Your task to perform on an android device: manage bookmarks in the chrome app Image 0: 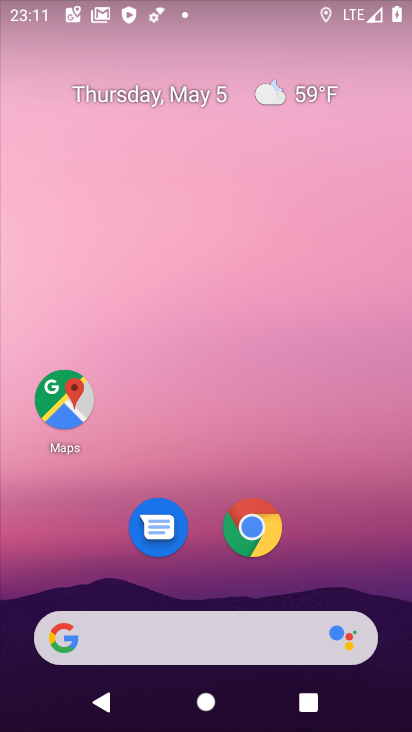
Step 0: click (248, 532)
Your task to perform on an android device: manage bookmarks in the chrome app Image 1: 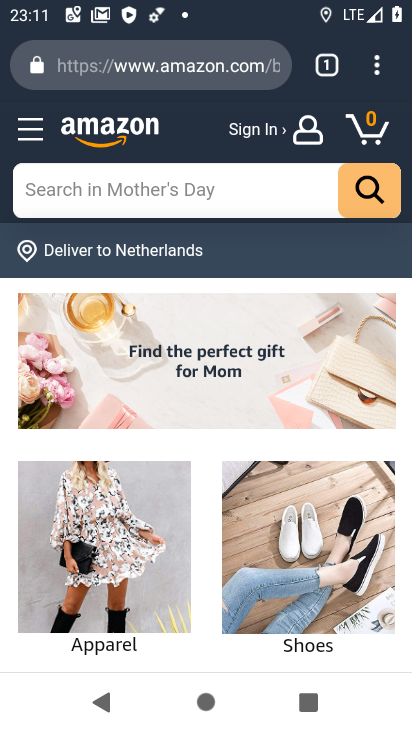
Step 1: click (376, 67)
Your task to perform on an android device: manage bookmarks in the chrome app Image 2: 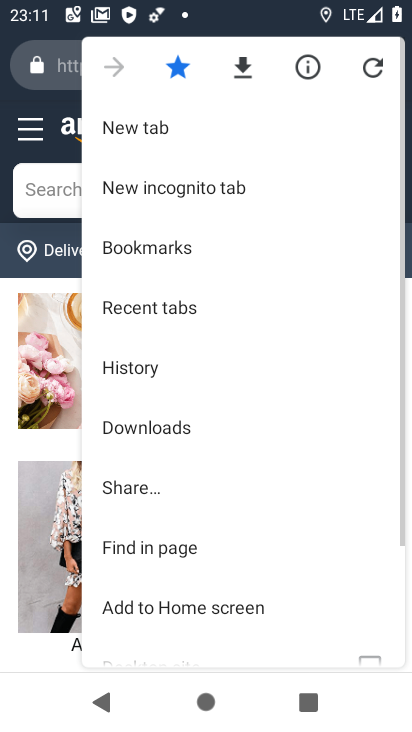
Step 2: click (176, 249)
Your task to perform on an android device: manage bookmarks in the chrome app Image 3: 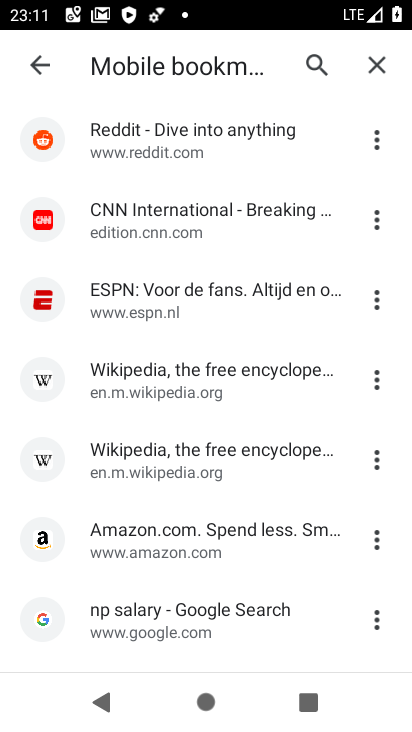
Step 3: click (375, 135)
Your task to perform on an android device: manage bookmarks in the chrome app Image 4: 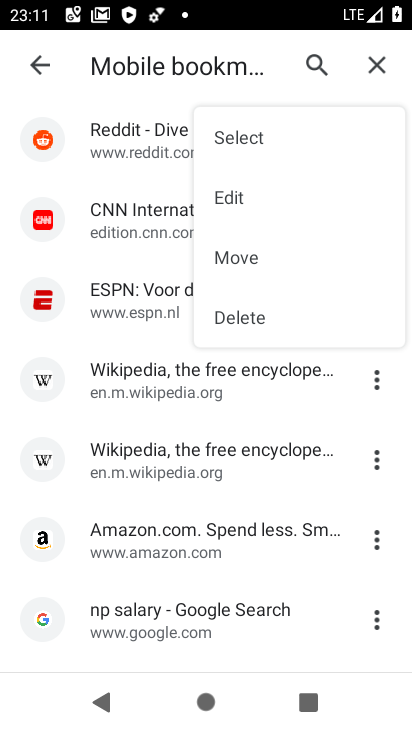
Step 4: click (287, 138)
Your task to perform on an android device: manage bookmarks in the chrome app Image 5: 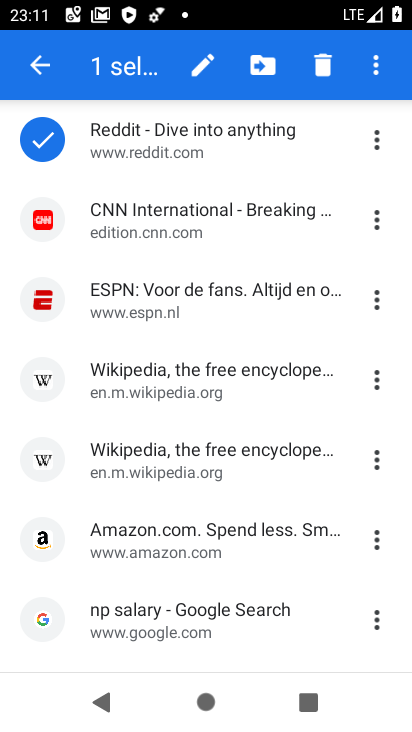
Step 5: click (212, 225)
Your task to perform on an android device: manage bookmarks in the chrome app Image 6: 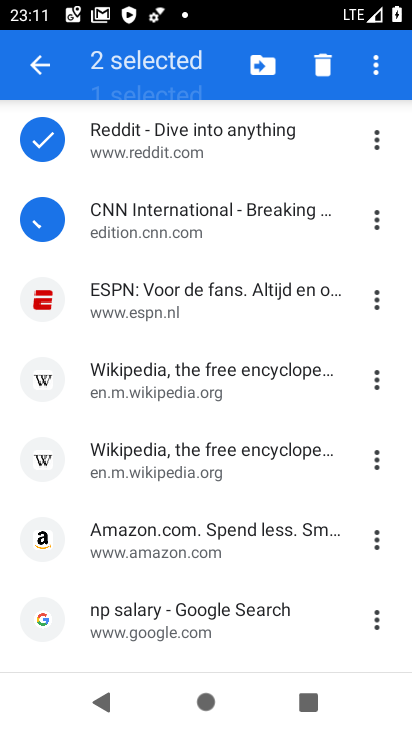
Step 6: click (198, 310)
Your task to perform on an android device: manage bookmarks in the chrome app Image 7: 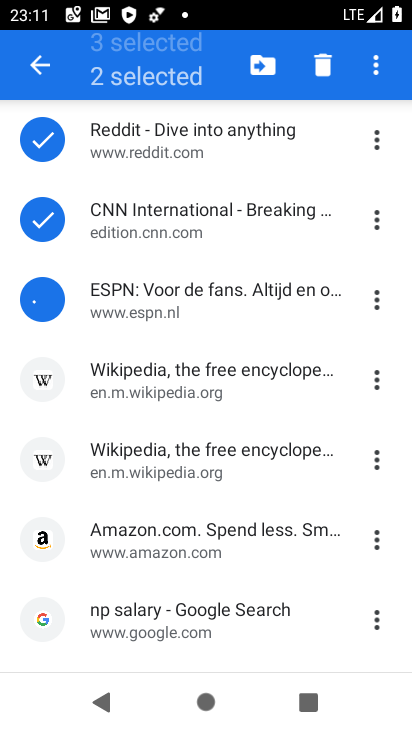
Step 7: click (180, 378)
Your task to perform on an android device: manage bookmarks in the chrome app Image 8: 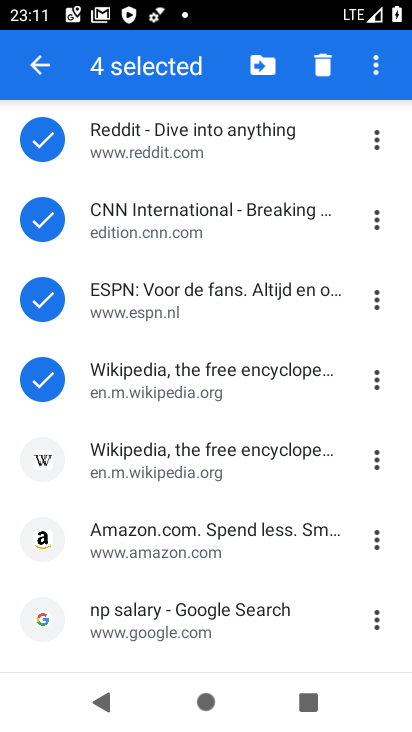
Step 8: click (171, 458)
Your task to perform on an android device: manage bookmarks in the chrome app Image 9: 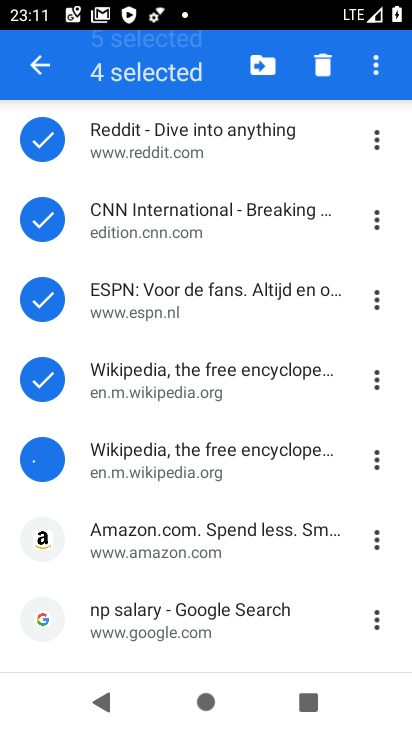
Step 9: click (165, 549)
Your task to perform on an android device: manage bookmarks in the chrome app Image 10: 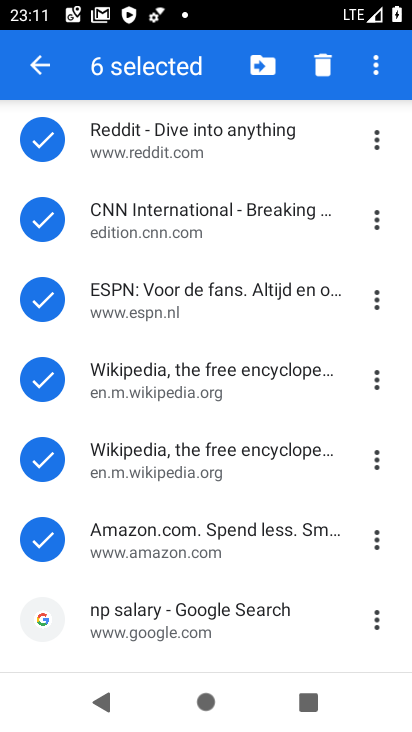
Step 10: click (143, 616)
Your task to perform on an android device: manage bookmarks in the chrome app Image 11: 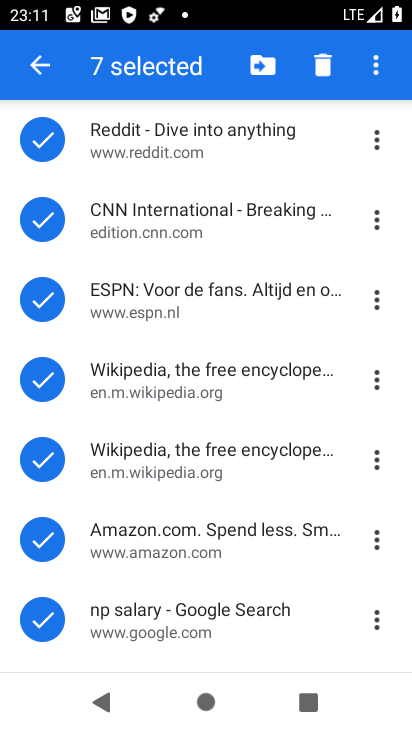
Step 11: drag from (177, 630) to (280, 59)
Your task to perform on an android device: manage bookmarks in the chrome app Image 12: 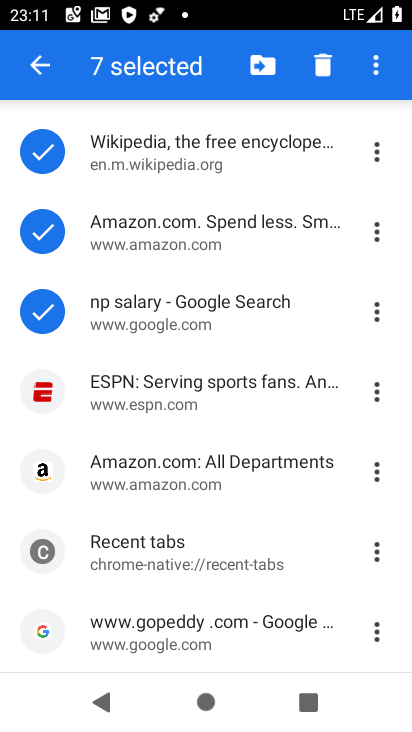
Step 12: click (159, 401)
Your task to perform on an android device: manage bookmarks in the chrome app Image 13: 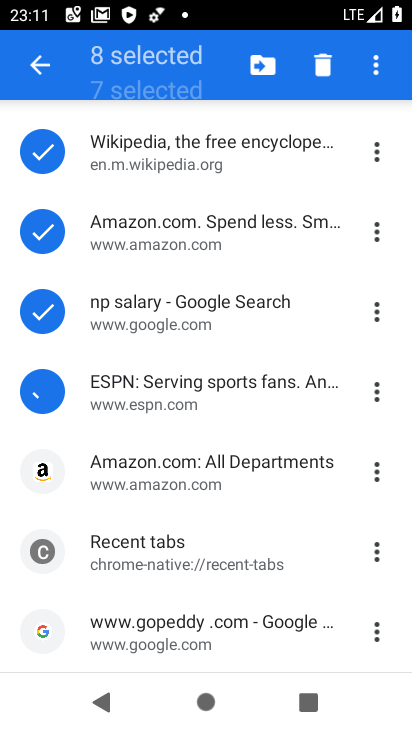
Step 13: click (157, 486)
Your task to perform on an android device: manage bookmarks in the chrome app Image 14: 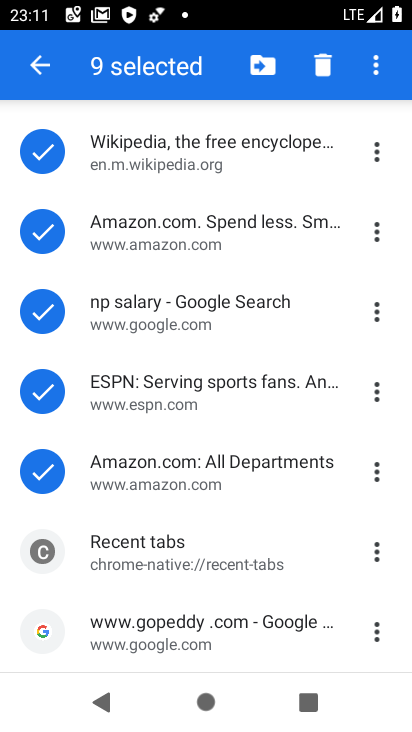
Step 14: click (145, 567)
Your task to perform on an android device: manage bookmarks in the chrome app Image 15: 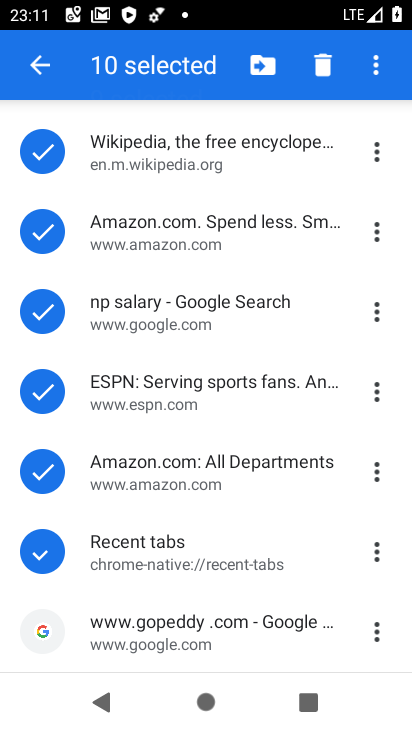
Step 15: click (134, 631)
Your task to perform on an android device: manage bookmarks in the chrome app Image 16: 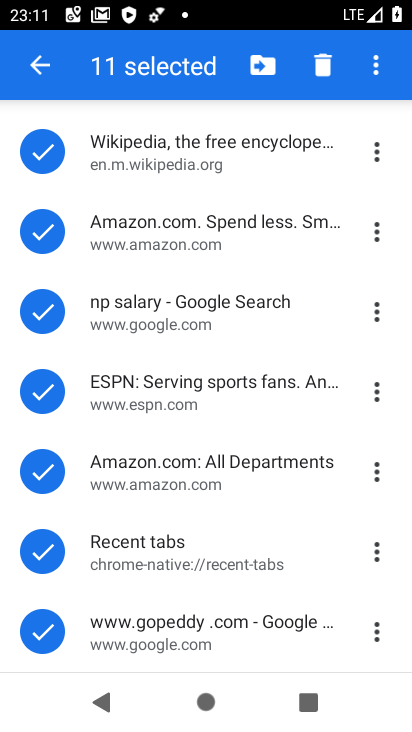
Step 16: click (264, 74)
Your task to perform on an android device: manage bookmarks in the chrome app Image 17: 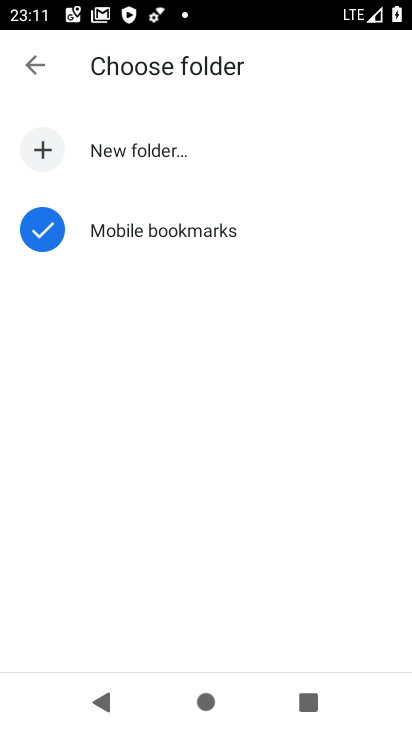
Step 17: click (179, 161)
Your task to perform on an android device: manage bookmarks in the chrome app Image 18: 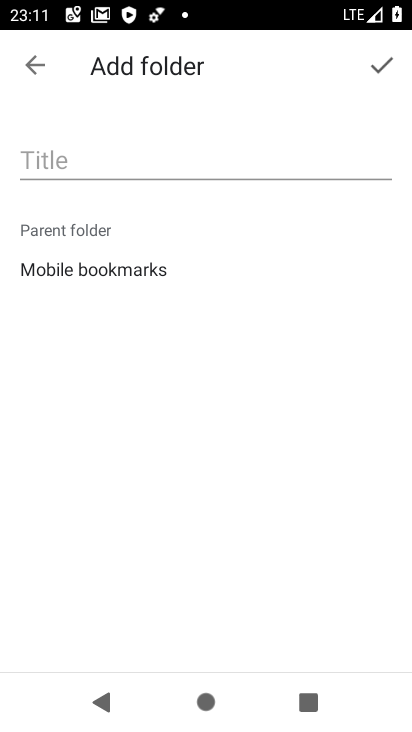
Step 18: click (199, 165)
Your task to perform on an android device: manage bookmarks in the chrome app Image 19: 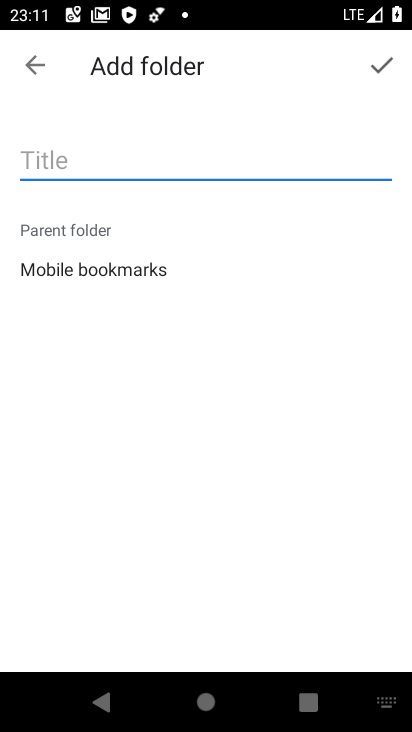
Step 19: type "11"
Your task to perform on an android device: manage bookmarks in the chrome app Image 20: 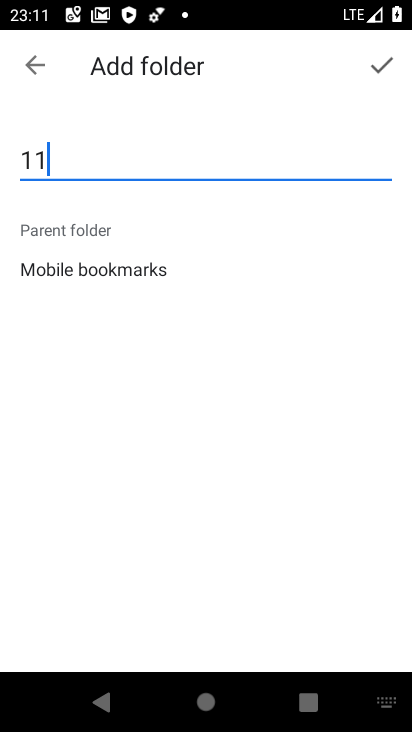
Step 20: type ""
Your task to perform on an android device: manage bookmarks in the chrome app Image 21: 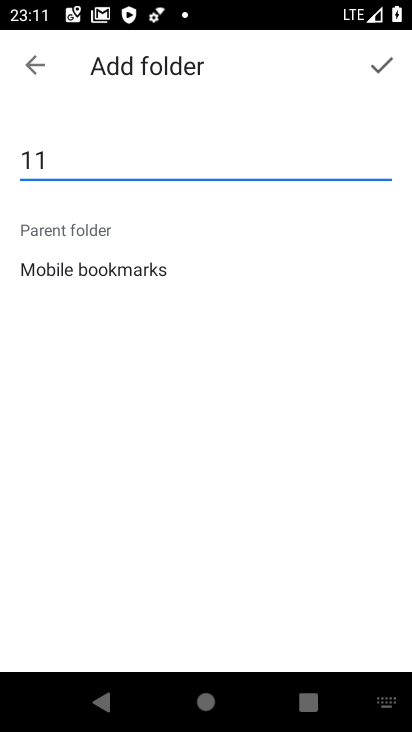
Step 21: click (383, 69)
Your task to perform on an android device: manage bookmarks in the chrome app Image 22: 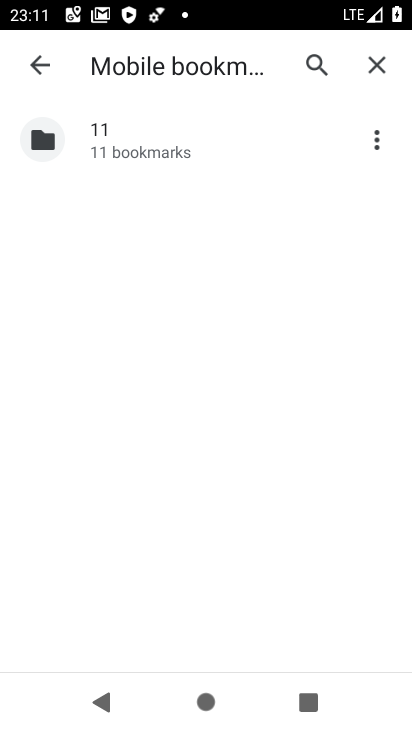
Step 22: task complete